Your task to perform on an android device: Open the calendar and show me this week's events Image 0: 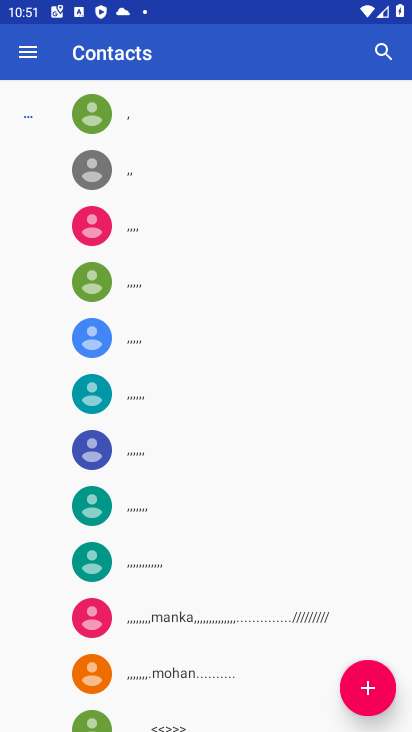
Step 0: press home button
Your task to perform on an android device: Open the calendar and show me this week's events Image 1: 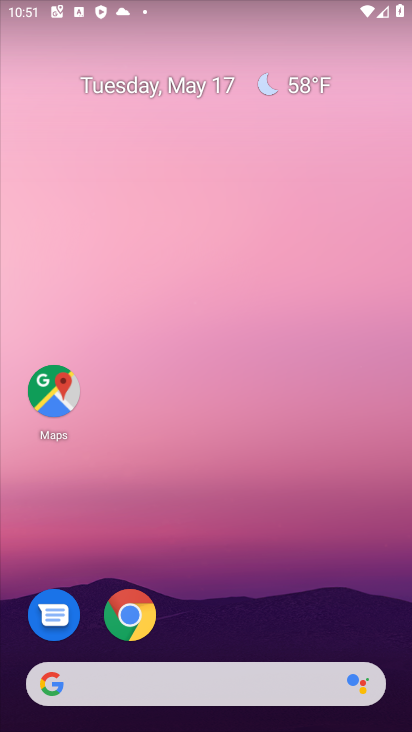
Step 1: drag from (337, 616) to (356, 100)
Your task to perform on an android device: Open the calendar and show me this week's events Image 2: 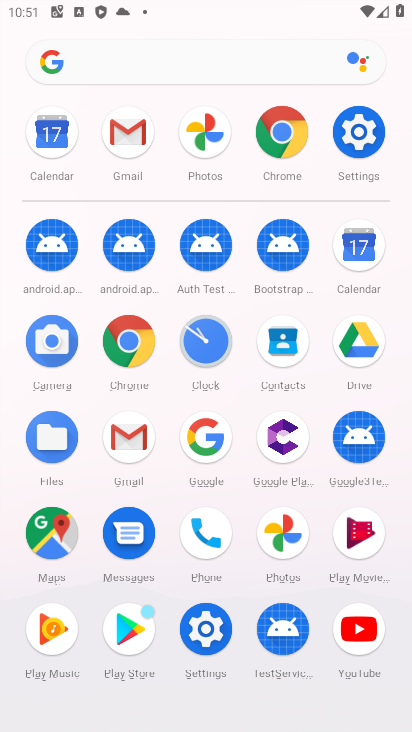
Step 2: click (357, 247)
Your task to perform on an android device: Open the calendar and show me this week's events Image 3: 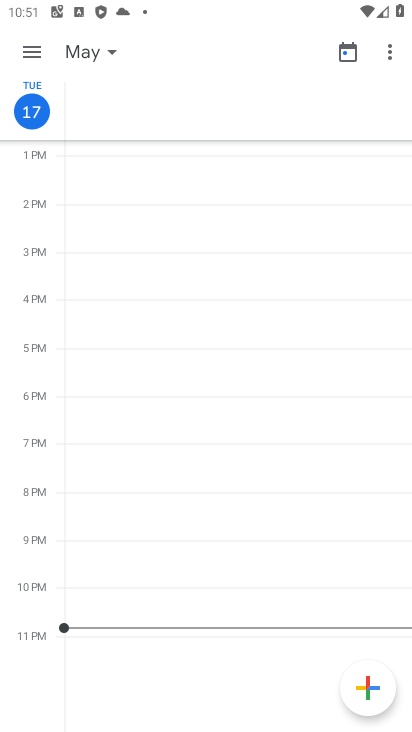
Step 3: click (32, 51)
Your task to perform on an android device: Open the calendar and show me this week's events Image 4: 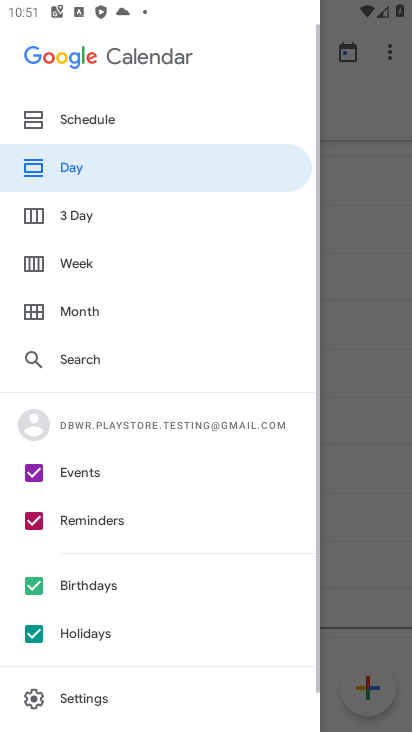
Step 4: click (81, 264)
Your task to perform on an android device: Open the calendar and show me this week's events Image 5: 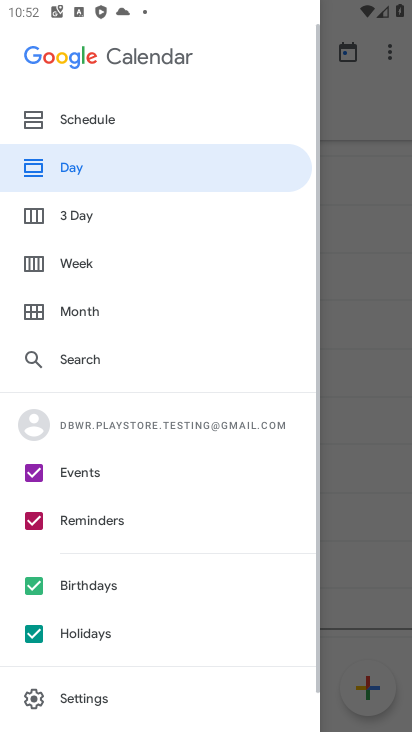
Step 5: click (92, 261)
Your task to perform on an android device: Open the calendar and show me this week's events Image 6: 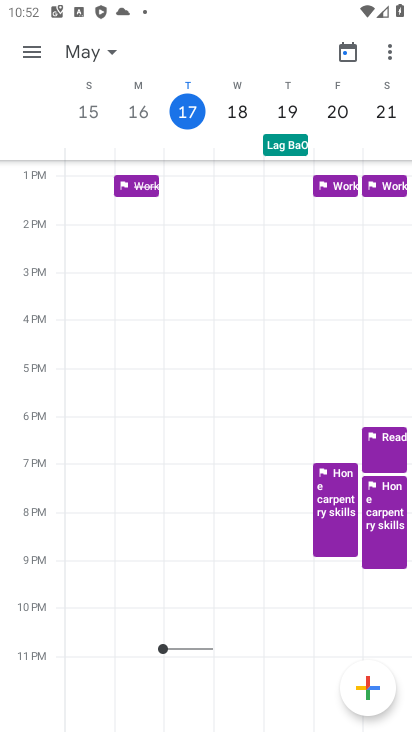
Step 6: task complete